Your task to perform on an android device: change notifications settings Image 0: 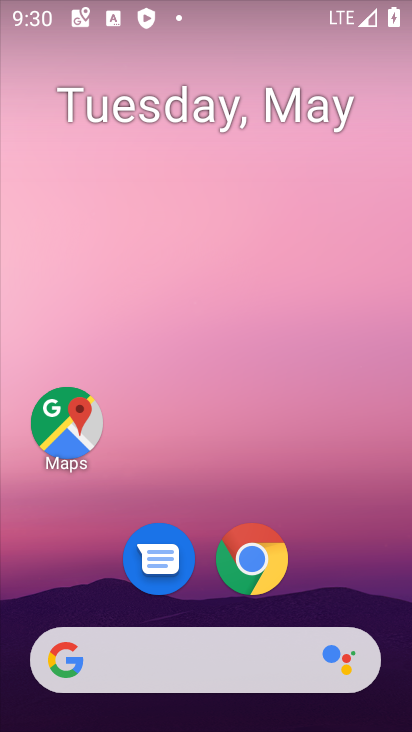
Step 0: drag from (224, 650) to (310, 301)
Your task to perform on an android device: change notifications settings Image 1: 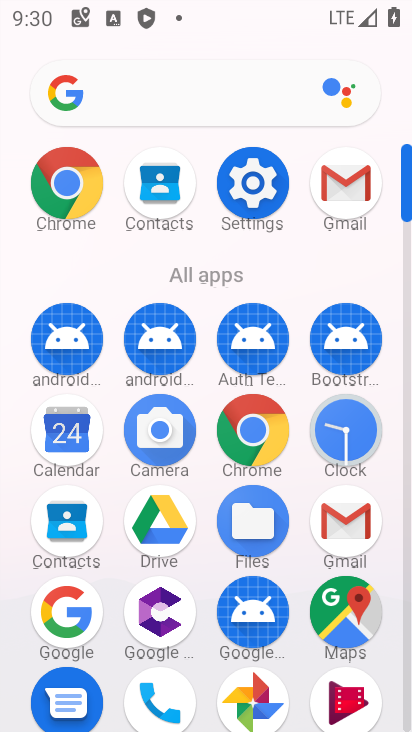
Step 1: click (258, 176)
Your task to perform on an android device: change notifications settings Image 2: 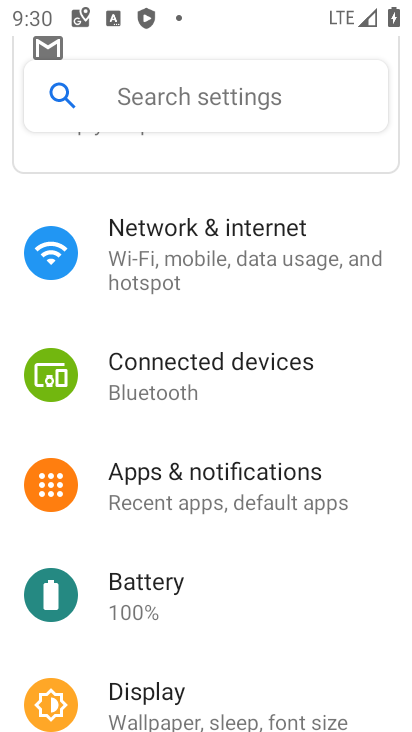
Step 2: drag from (140, 642) to (295, 263)
Your task to perform on an android device: change notifications settings Image 3: 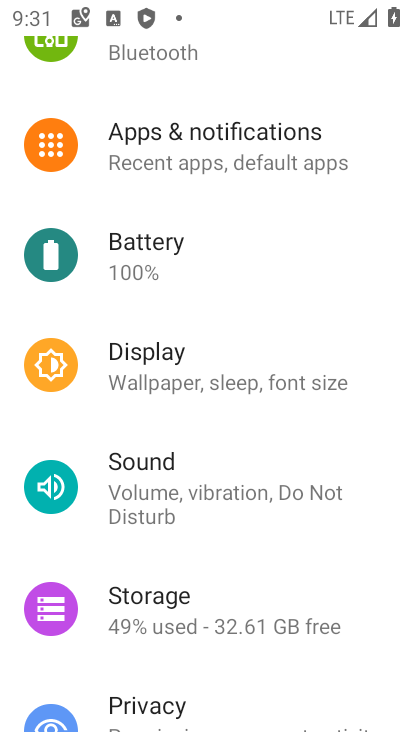
Step 3: click (190, 472)
Your task to perform on an android device: change notifications settings Image 4: 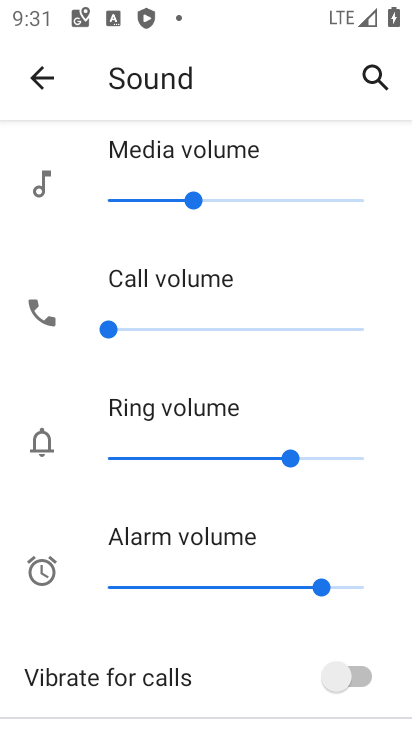
Step 4: drag from (212, 668) to (225, 152)
Your task to perform on an android device: change notifications settings Image 5: 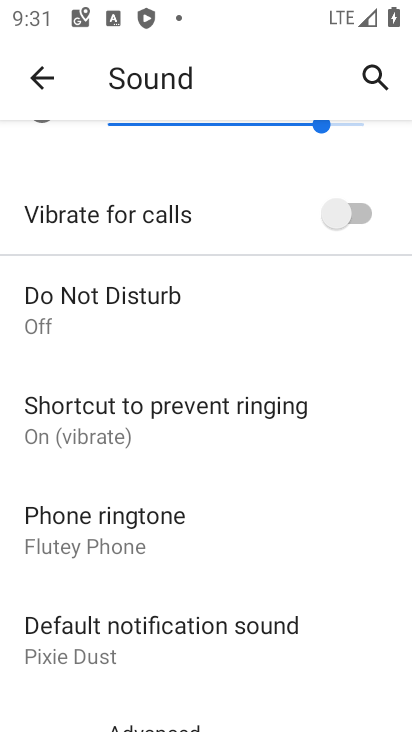
Step 5: click (138, 517)
Your task to perform on an android device: change notifications settings Image 6: 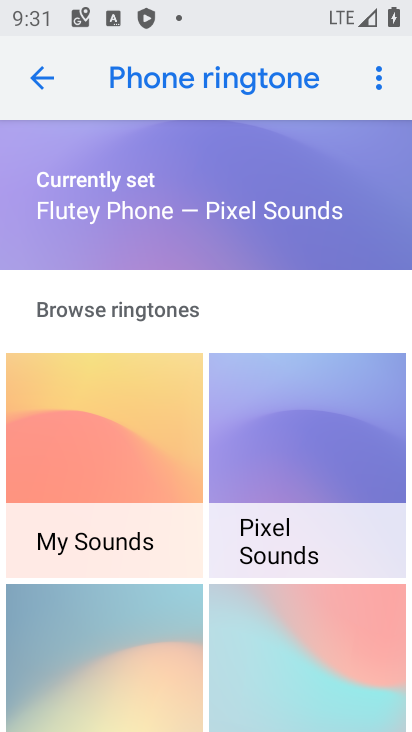
Step 6: drag from (239, 507) to (216, 117)
Your task to perform on an android device: change notifications settings Image 7: 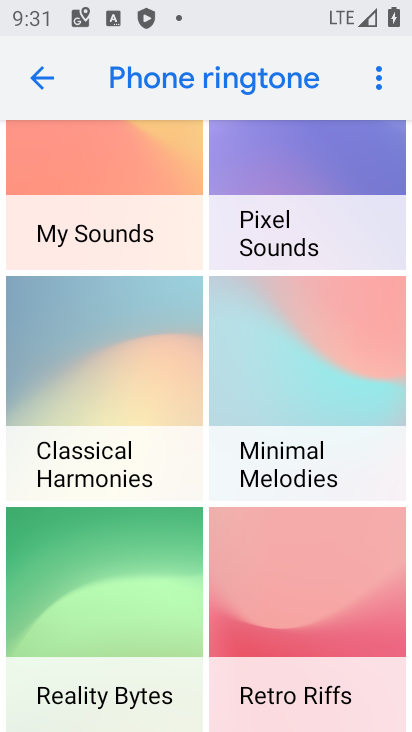
Step 7: click (150, 440)
Your task to perform on an android device: change notifications settings Image 8: 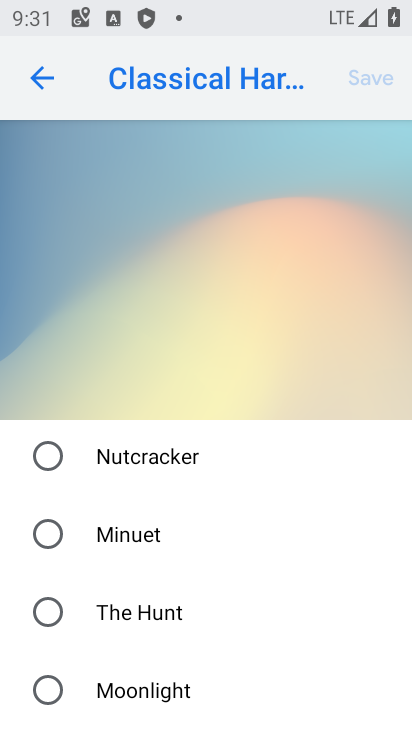
Step 8: click (125, 452)
Your task to perform on an android device: change notifications settings Image 9: 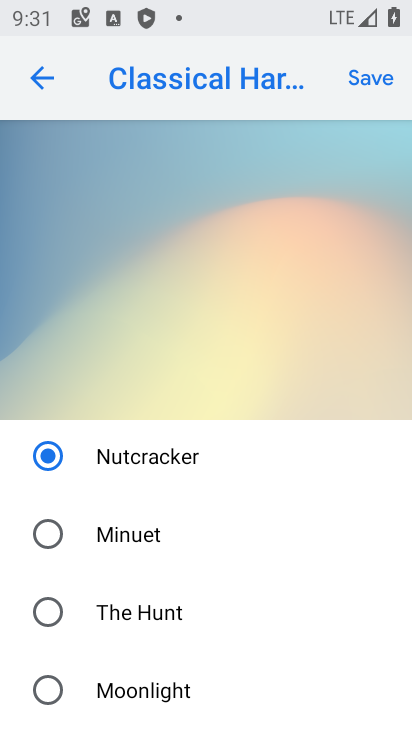
Step 9: click (374, 68)
Your task to perform on an android device: change notifications settings Image 10: 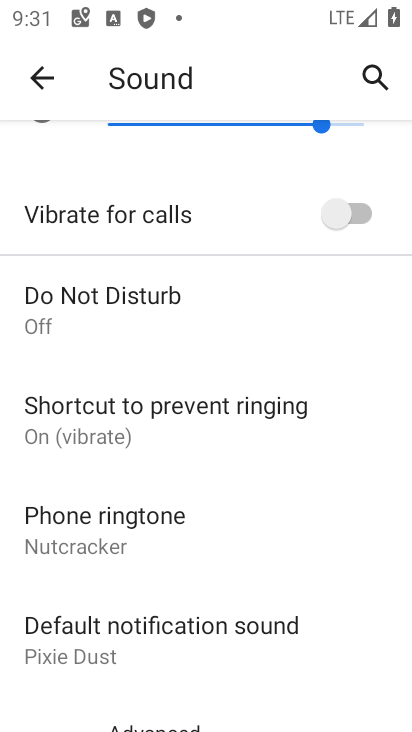
Step 10: task complete